Your task to perform on an android device: open chrome and create a bookmark for the current page Image 0: 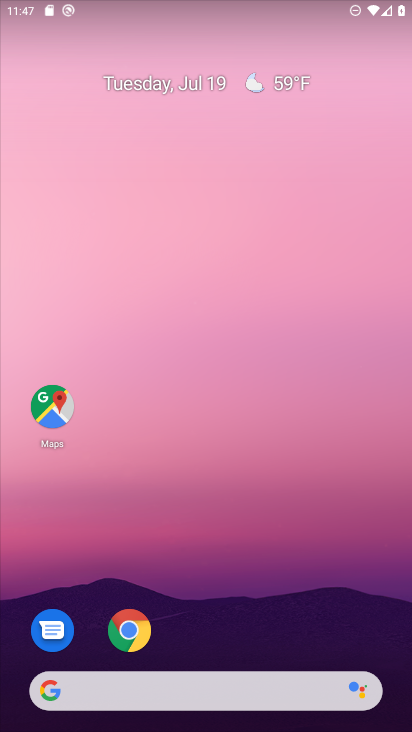
Step 0: drag from (143, 625) to (235, 33)
Your task to perform on an android device: open chrome and create a bookmark for the current page Image 1: 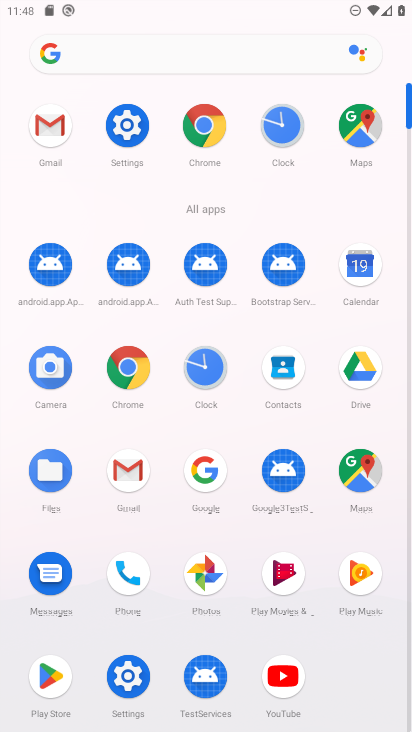
Step 1: click (137, 377)
Your task to perform on an android device: open chrome and create a bookmark for the current page Image 2: 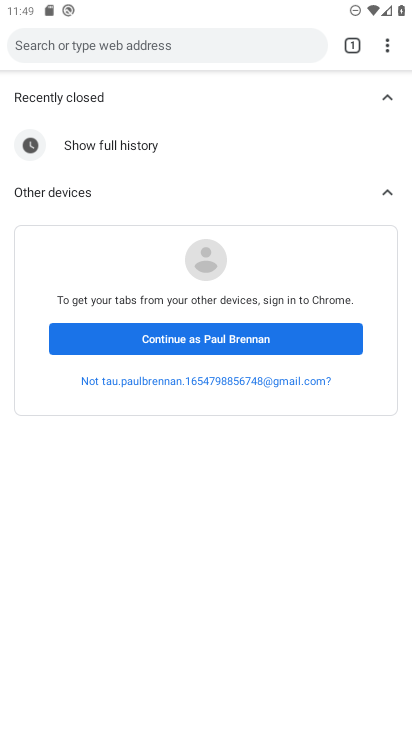
Step 2: drag from (390, 50) to (334, 170)
Your task to perform on an android device: open chrome and create a bookmark for the current page Image 3: 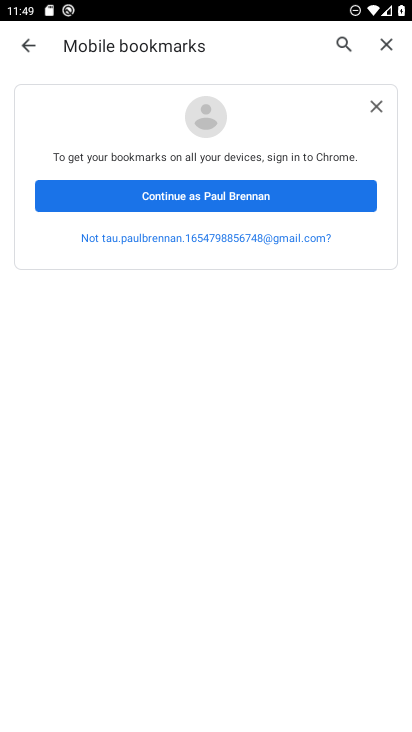
Step 3: press back button
Your task to perform on an android device: open chrome and create a bookmark for the current page Image 4: 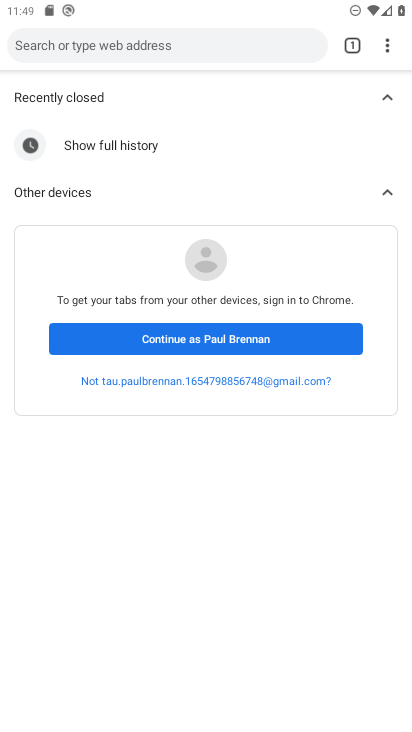
Step 4: click (384, 41)
Your task to perform on an android device: open chrome and create a bookmark for the current page Image 5: 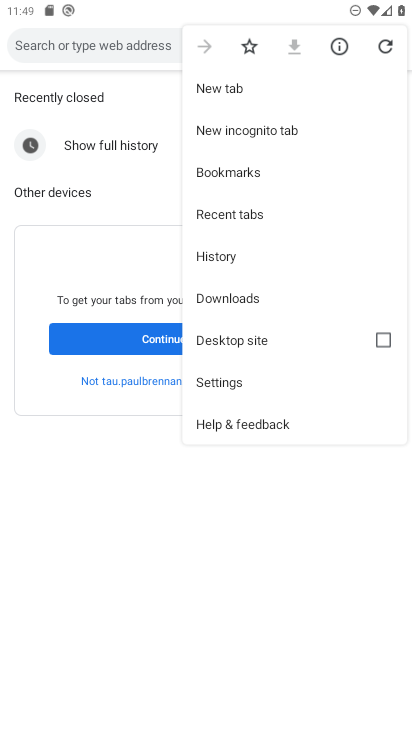
Step 5: click (247, 49)
Your task to perform on an android device: open chrome and create a bookmark for the current page Image 6: 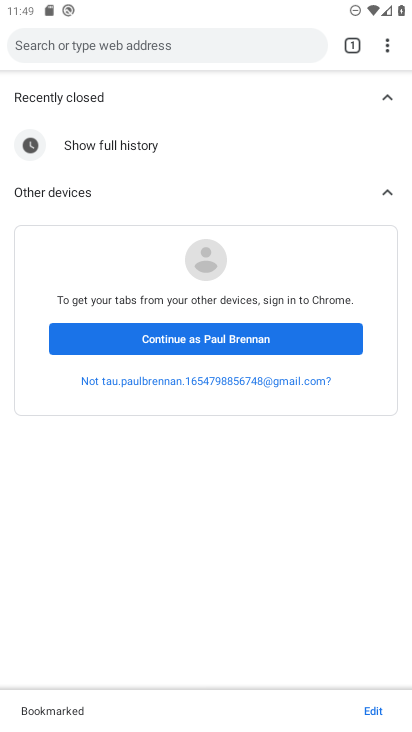
Step 6: task complete